Your task to perform on an android device: toggle improve location accuracy Image 0: 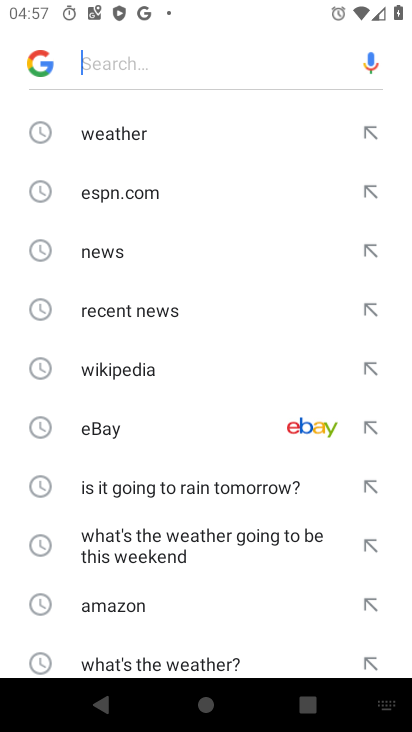
Step 0: press back button
Your task to perform on an android device: toggle improve location accuracy Image 1: 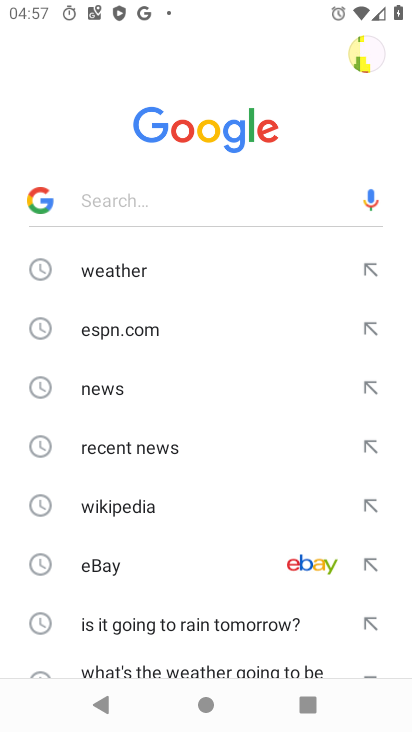
Step 1: press back button
Your task to perform on an android device: toggle improve location accuracy Image 2: 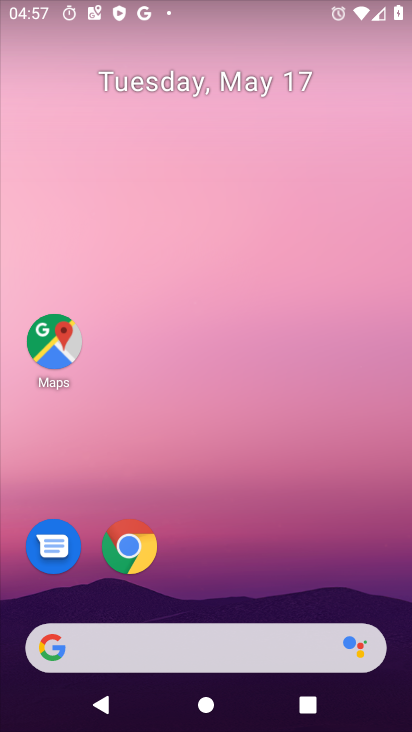
Step 2: drag from (397, 624) to (384, 314)
Your task to perform on an android device: toggle improve location accuracy Image 3: 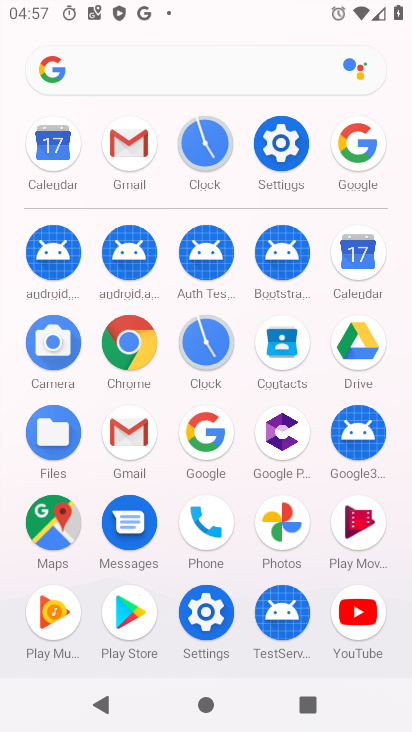
Step 3: click (198, 610)
Your task to perform on an android device: toggle improve location accuracy Image 4: 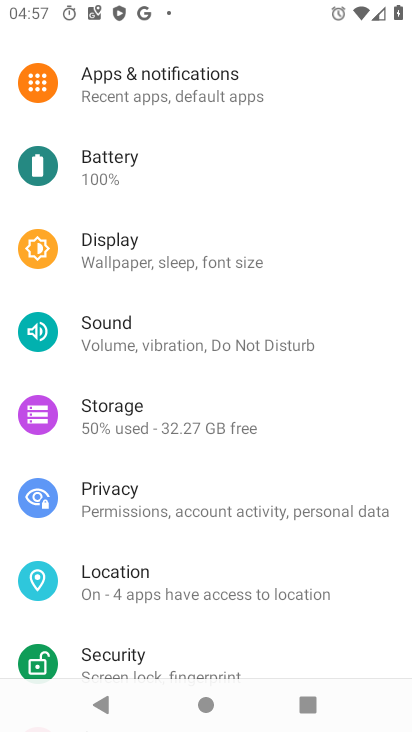
Step 4: click (88, 575)
Your task to perform on an android device: toggle improve location accuracy Image 5: 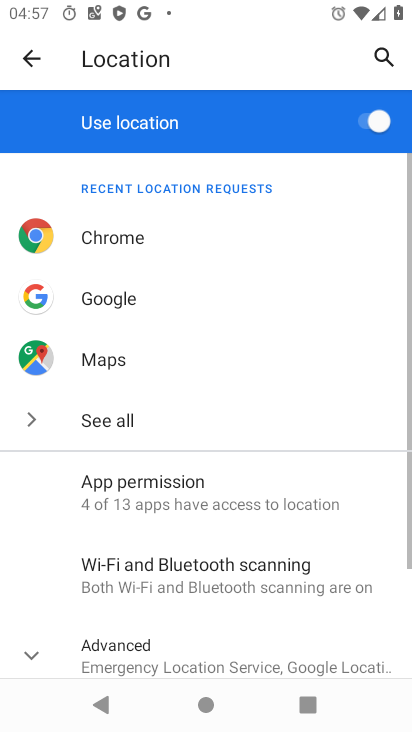
Step 5: drag from (352, 598) to (320, 376)
Your task to perform on an android device: toggle improve location accuracy Image 6: 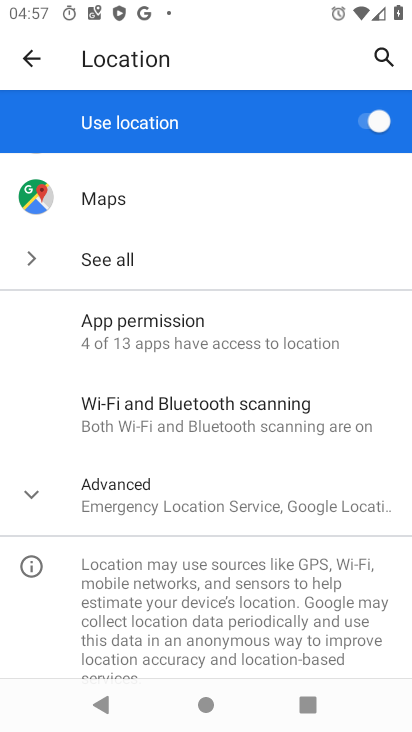
Step 6: click (44, 489)
Your task to perform on an android device: toggle improve location accuracy Image 7: 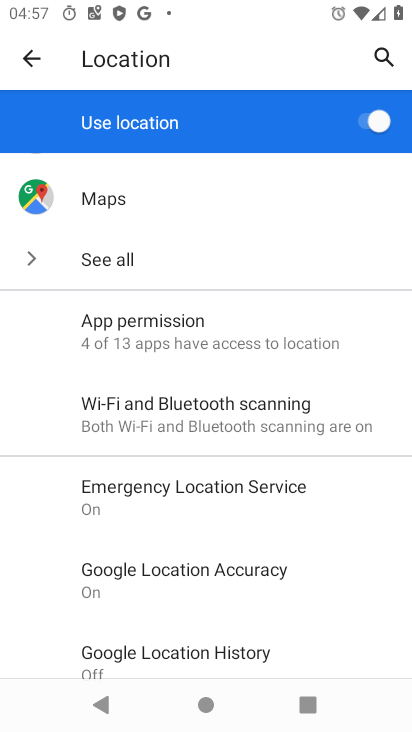
Step 7: drag from (331, 643) to (329, 466)
Your task to perform on an android device: toggle improve location accuracy Image 8: 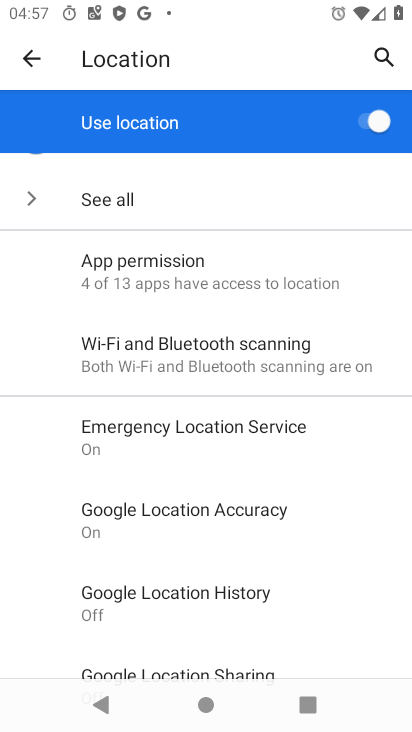
Step 8: click (107, 529)
Your task to perform on an android device: toggle improve location accuracy Image 9: 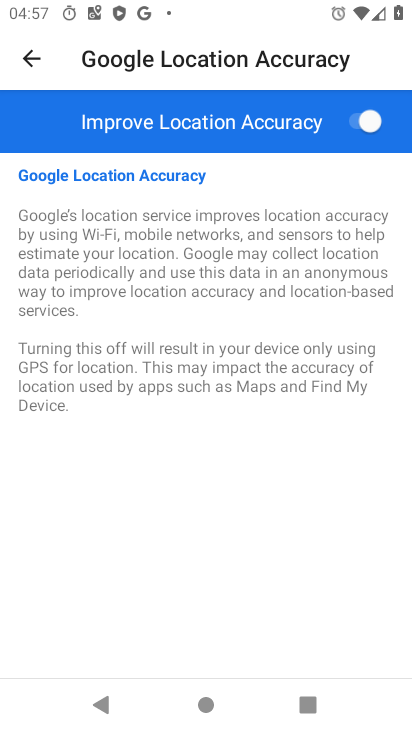
Step 9: click (355, 125)
Your task to perform on an android device: toggle improve location accuracy Image 10: 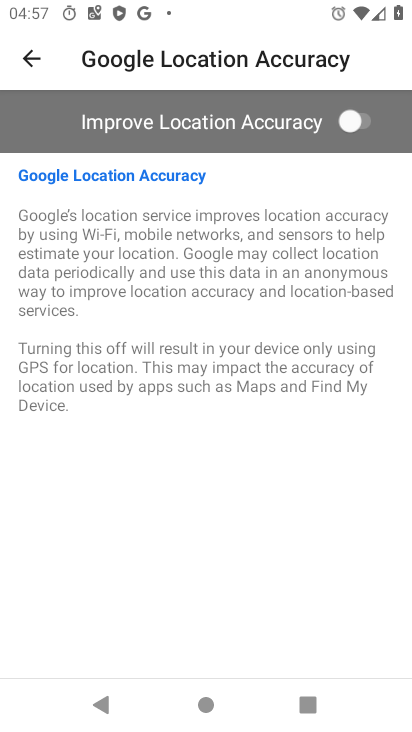
Step 10: task complete